Your task to perform on an android device: add a label to a message in the gmail app Image 0: 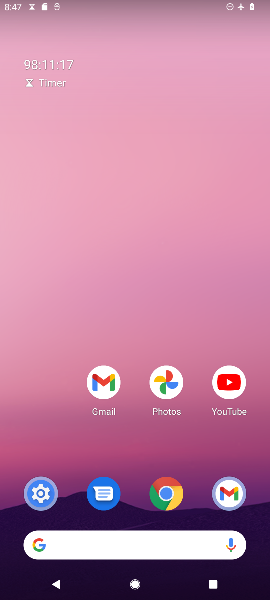
Step 0: drag from (123, 359) to (137, 77)
Your task to perform on an android device: add a label to a message in the gmail app Image 1: 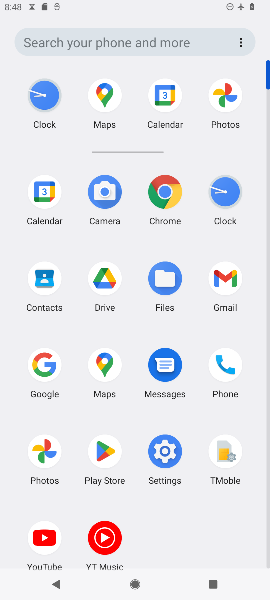
Step 1: click (227, 283)
Your task to perform on an android device: add a label to a message in the gmail app Image 2: 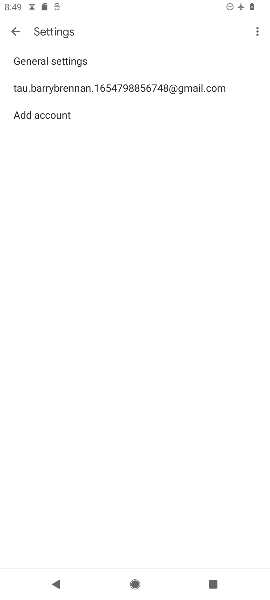
Step 2: click (10, 19)
Your task to perform on an android device: add a label to a message in the gmail app Image 3: 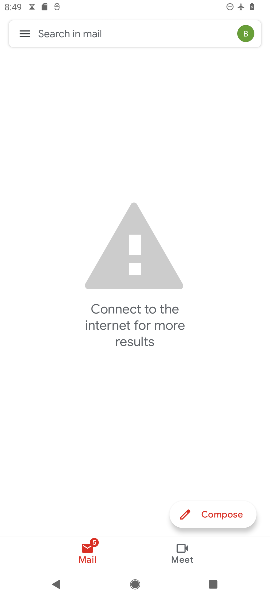
Step 3: click (21, 34)
Your task to perform on an android device: add a label to a message in the gmail app Image 4: 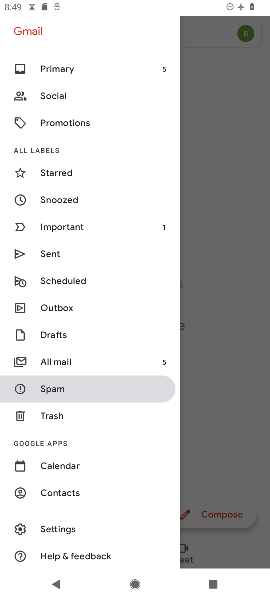
Step 4: click (61, 359)
Your task to perform on an android device: add a label to a message in the gmail app Image 5: 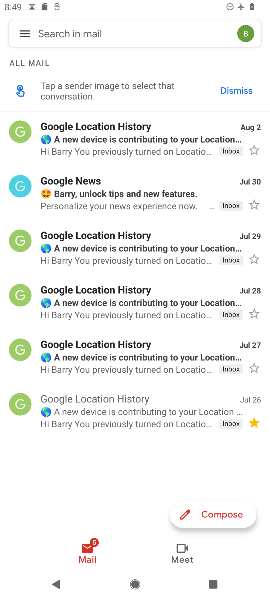
Step 5: click (85, 129)
Your task to perform on an android device: add a label to a message in the gmail app Image 6: 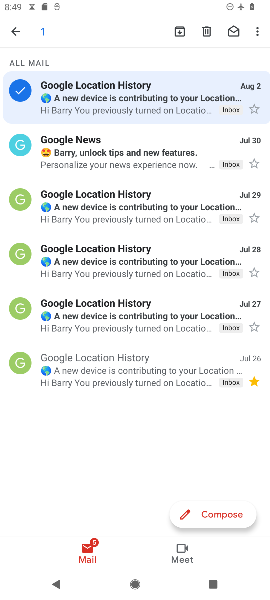
Step 6: click (263, 33)
Your task to perform on an android device: add a label to a message in the gmail app Image 7: 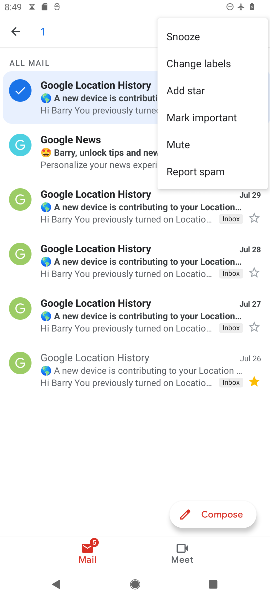
Step 7: click (209, 59)
Your task to perform on an android device: add a label to a message in the gmail app Image 8: 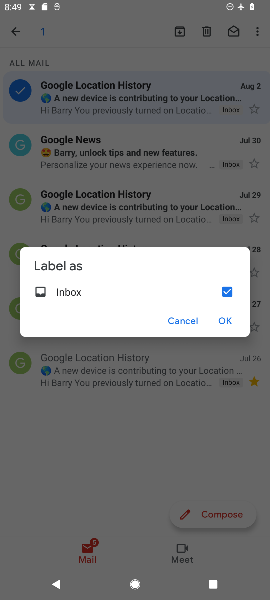
Step 8: click (225, 316)
Your task to perform on an android device: add a label to a message in the gmail app Image 9: 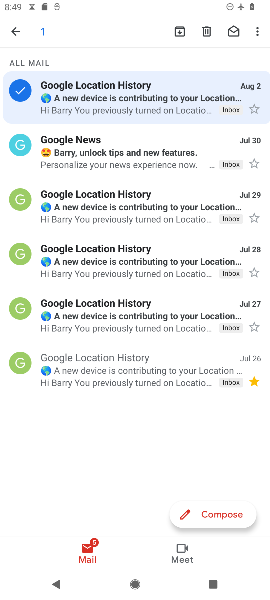
Step 9: task complete